Your task to perform on an android device: Open Reddit.com Image 0: 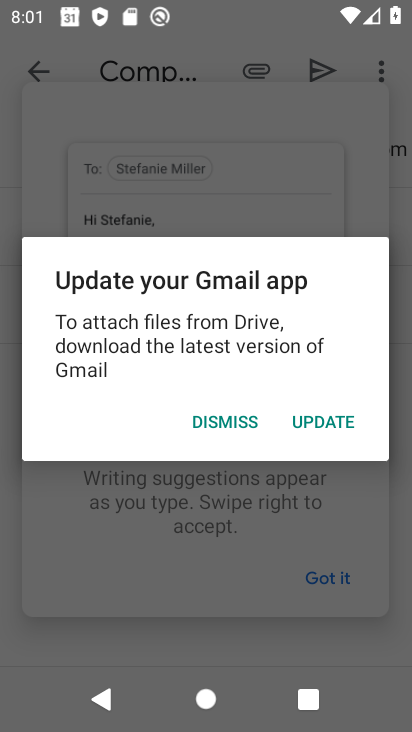
Step 0: press home button
Your task to perform on an android device: Open Reddit.com Image 1: 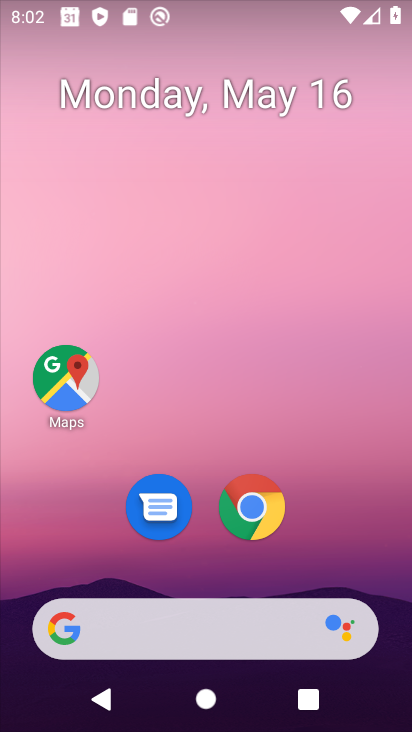
Step 1: click (266, 512)
Your task to perform on an android device: Open Reddit.com Image 2: 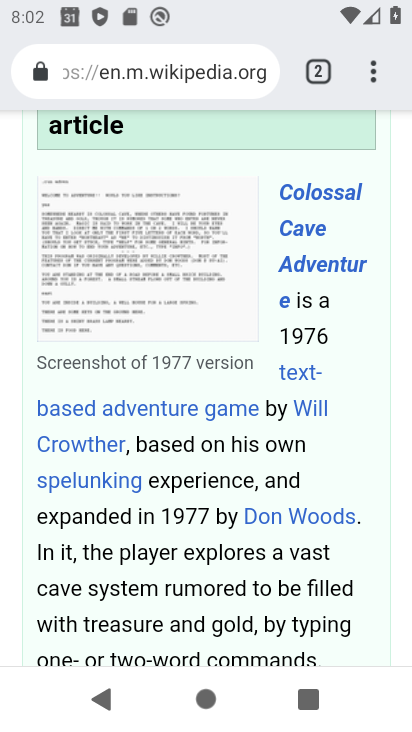
Step 2: click (127, 68)
Your task to perform on an android device: Open Reddit.com Image 3: 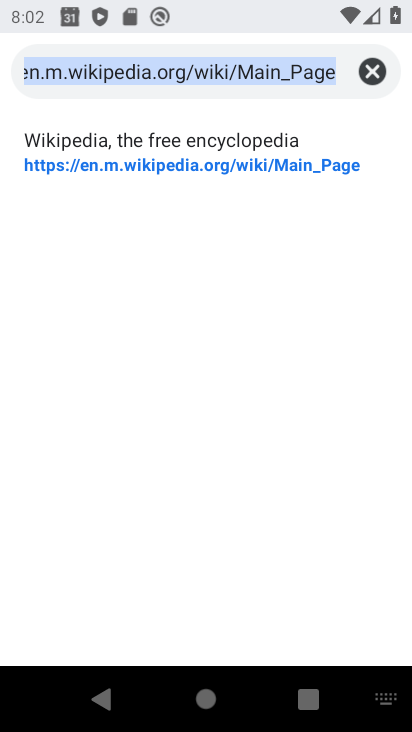
Step 3: click (366, 66)
Your task to perform on an android device: Open Reddit.com Image 4: 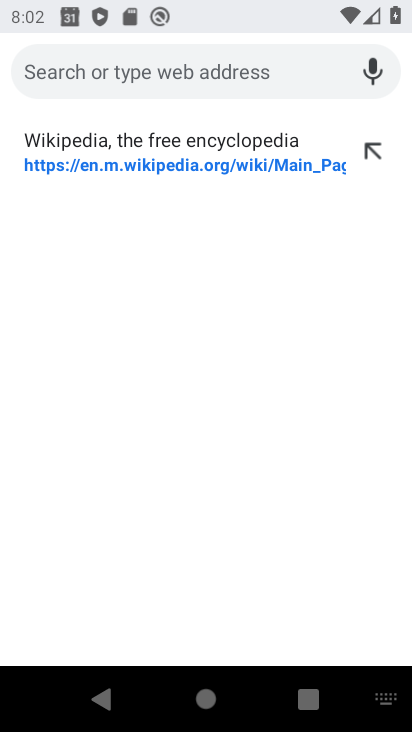
Step 4: type "Reddit.com"
Your task to perform on an android device: Open Reddit.com Image 5: 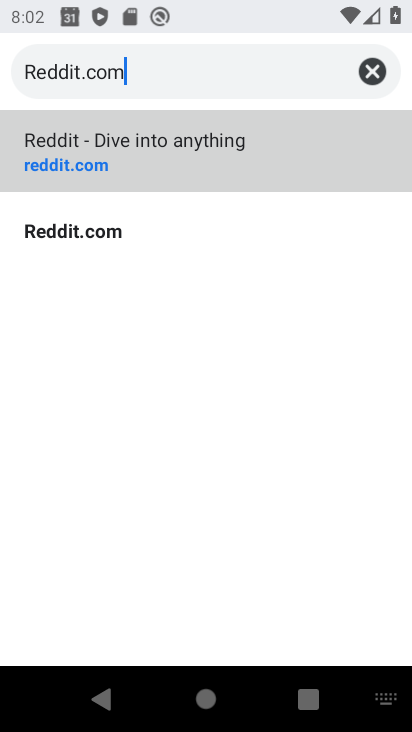
Step 5: click (86, 160)
Your task to perform on an android device: Open Reddit.com Image 6: 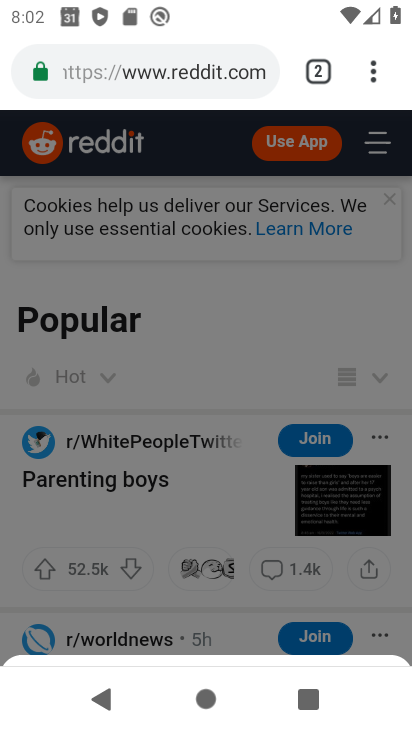
Step 6: task complete